Your task to perform on an android device: Show the shopping cart on newegg. Add razer thresher to the cart on newegg, then select checkout. Image 0: 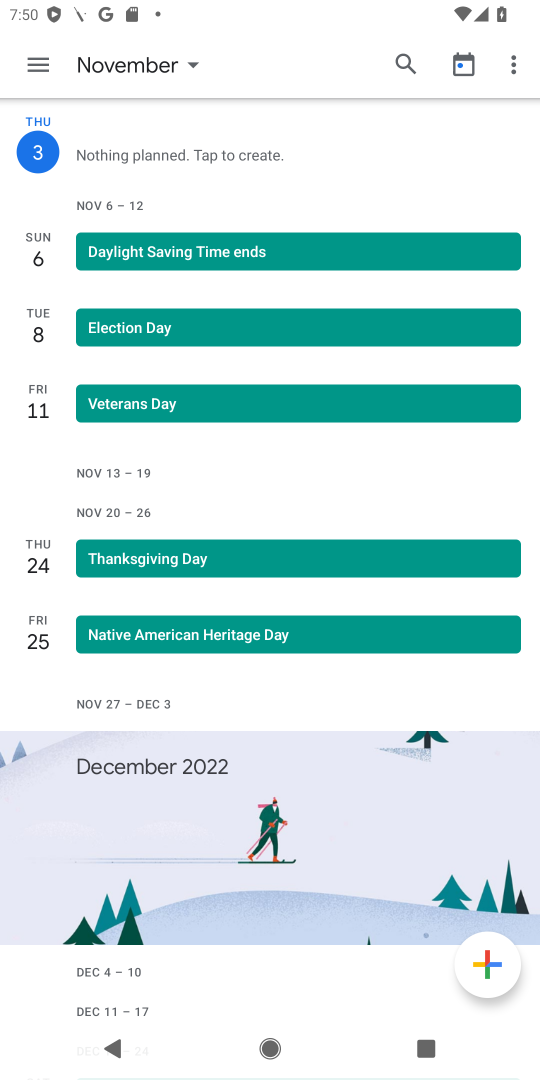
Step 0: press home button
Your task to perform on an android device: Show the shopping cart on newegg. Add razer thresher to the cart on newegg, then select checkout. Image 1: 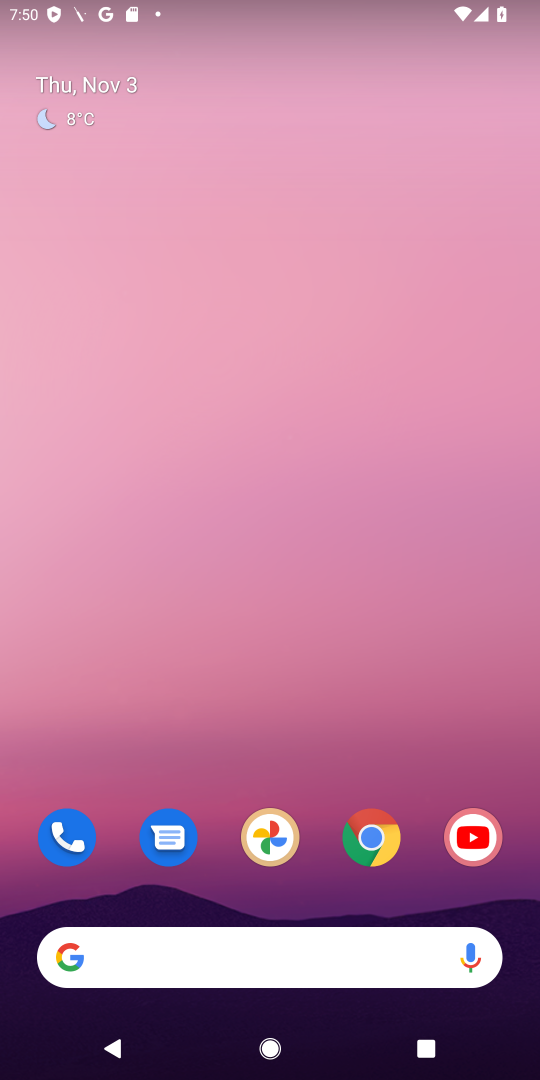
Step 1: click (363, 836)
Your task to perform on an android device: Show the shopping cart on newegg. Add razer thresher to the cart on newegg, then select checkout. Image 2: 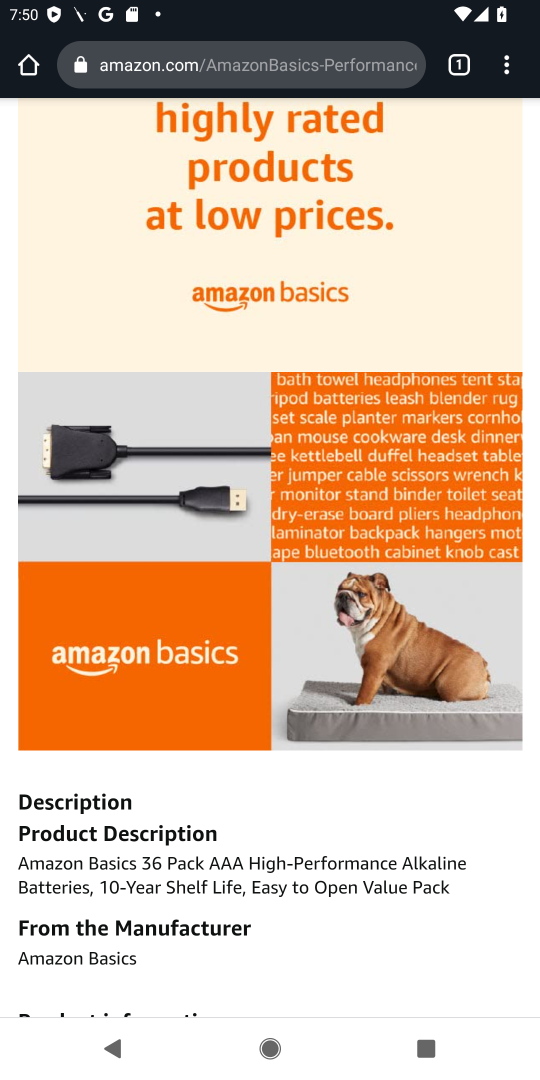
Step 2: click (282, 70)
Your task to perform on an android device: Show the shopping cart on newegg. Add razer thresher to the cart on newegg, then select checkout. Image 3: 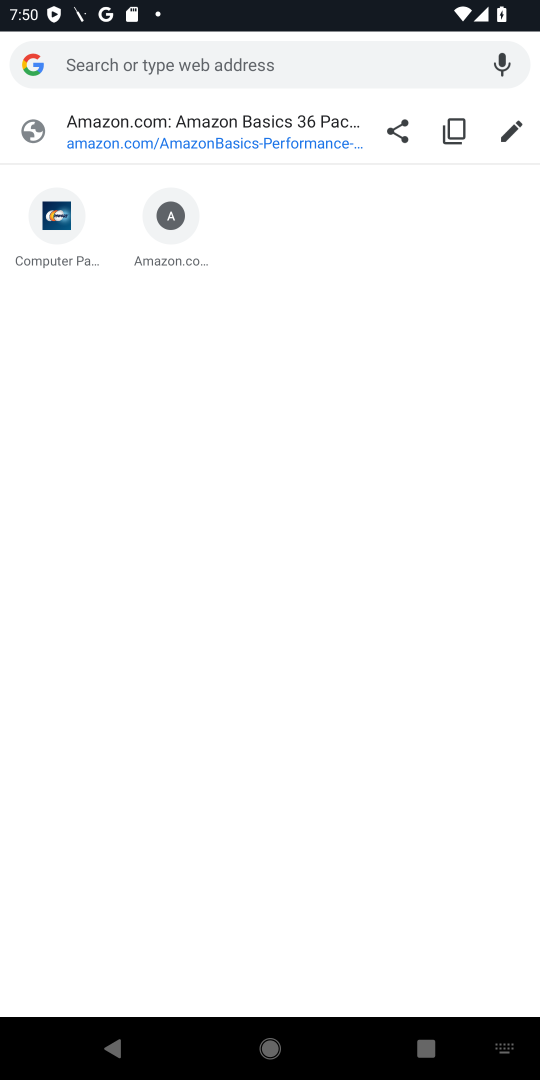
Step 3: type " newegg"
Your task to perform on an android device: Show the shopping cart on newegg. Add razer thresher to the cart on newegg, then select checkout. Image 4: 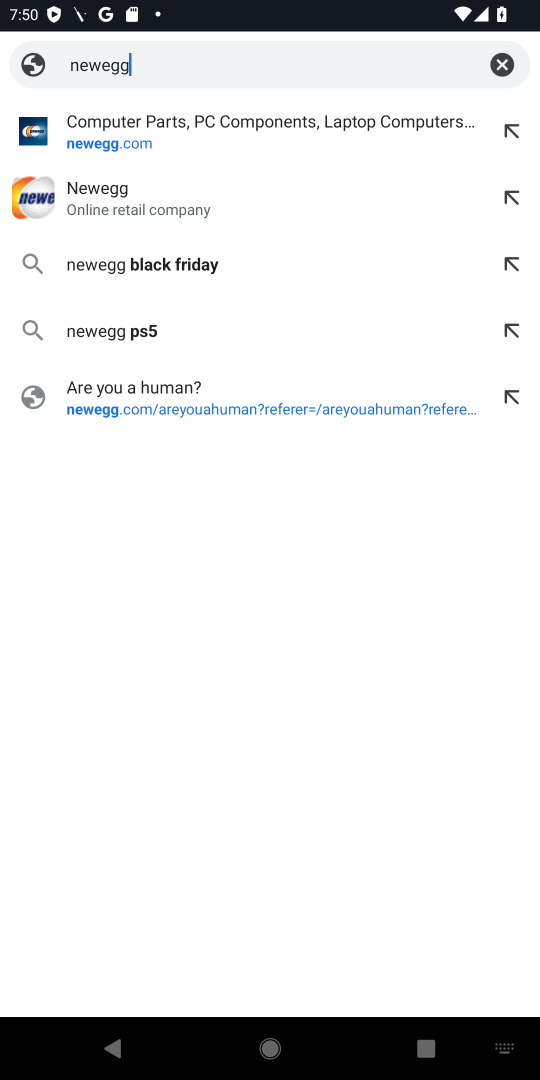
Step 4: click (89, 188)
Your task to perform on an android device: Show the shopping cart on newegg. Add razer thresher to the cart on newegg, then select checkout. Image 5: 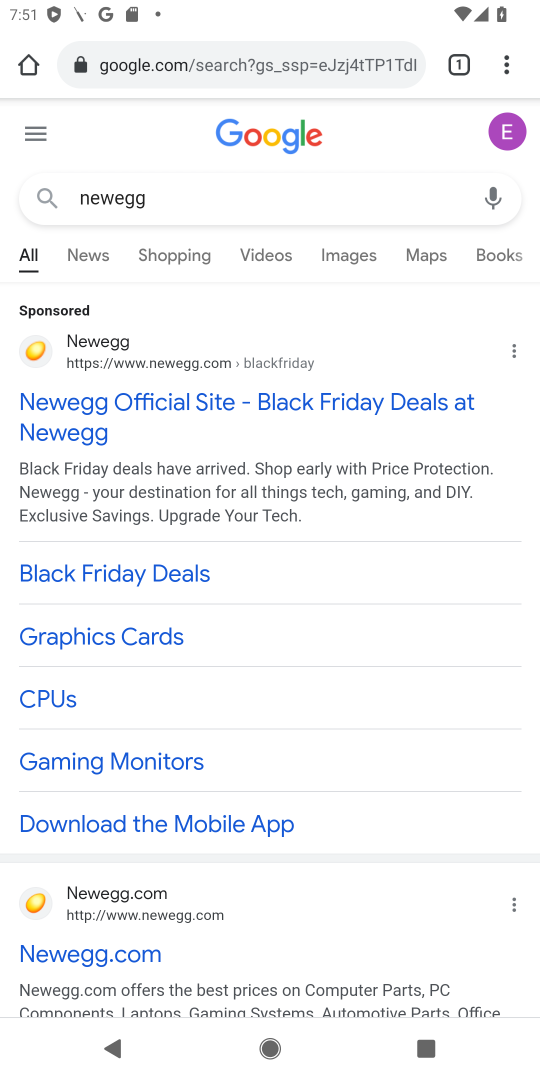
Step 5: click (142, 401)
Your task to perform on an android device: Show the shopping cart on newegg. Add razer thresher to the cart on newegg, then select checkout. Image 6: 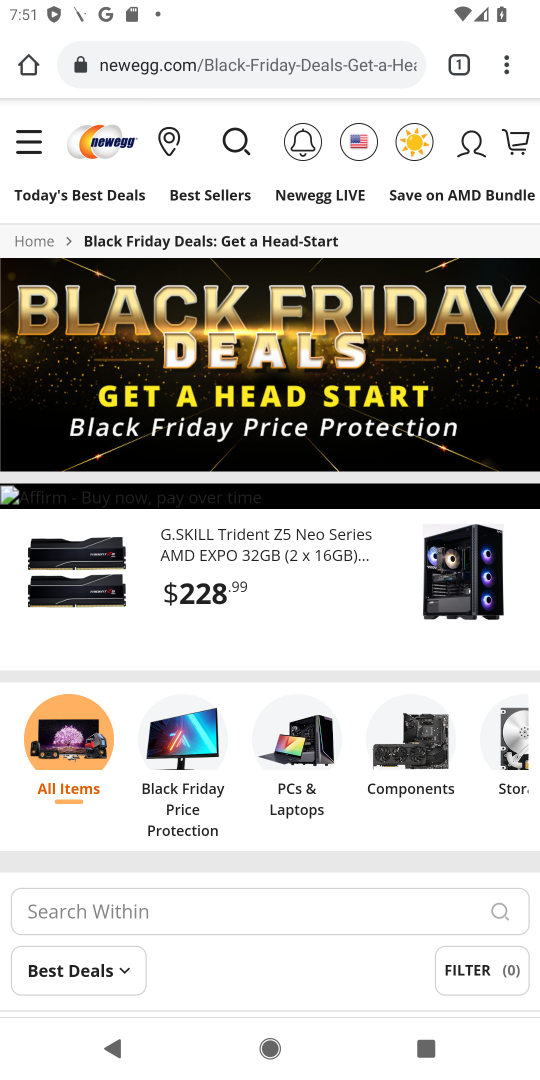
Step 6: click (235, 137)
Your task to perform on an android device: Show the shopping cart on newegg. Add razer thresher to the cart on newegg, then select checkout. Image 7: 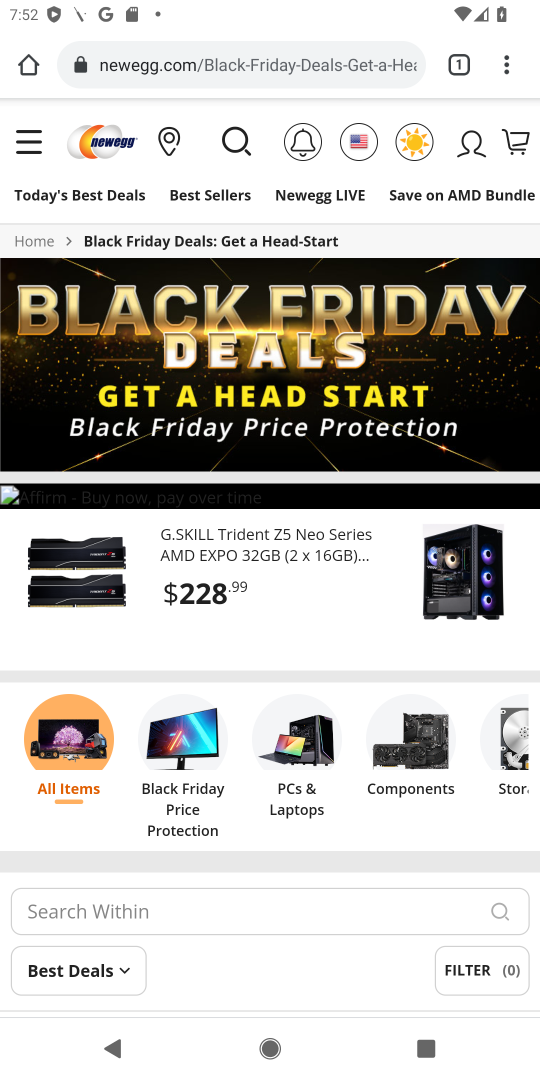
Step 7: click (230, 144)
Your task to perform on an android device: Show the shopping cart on newegg. Add razer thresher to the cart on newegg, then select checkout. Image 8: 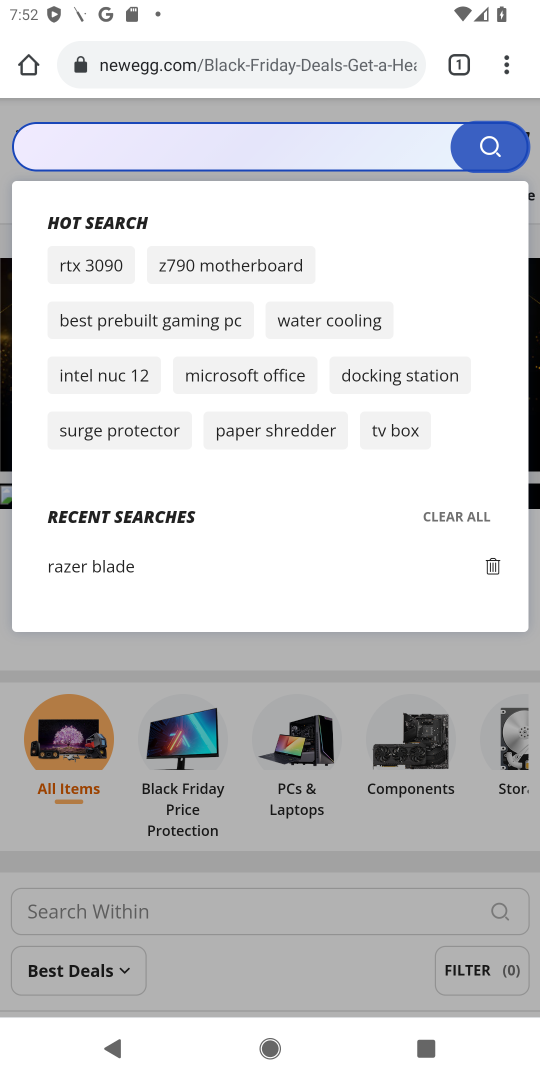
Step 8: click (92, 147)
Your task to perform on an android device: Show the shopping cart on newegg. Add razer thresher to the cart on newegg, then select checkout. Image 9: 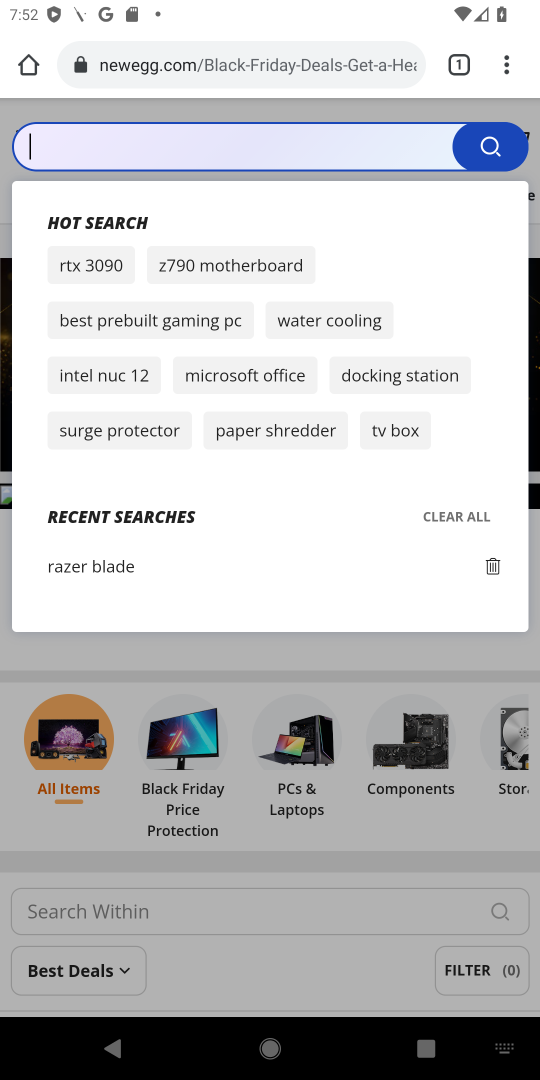
Step 9: type "razer thresher "
Your task to perform on an android device: Show the shopping cart on newegg. Add razer thresher to the cart on newegg, then select checkout. Image 10: 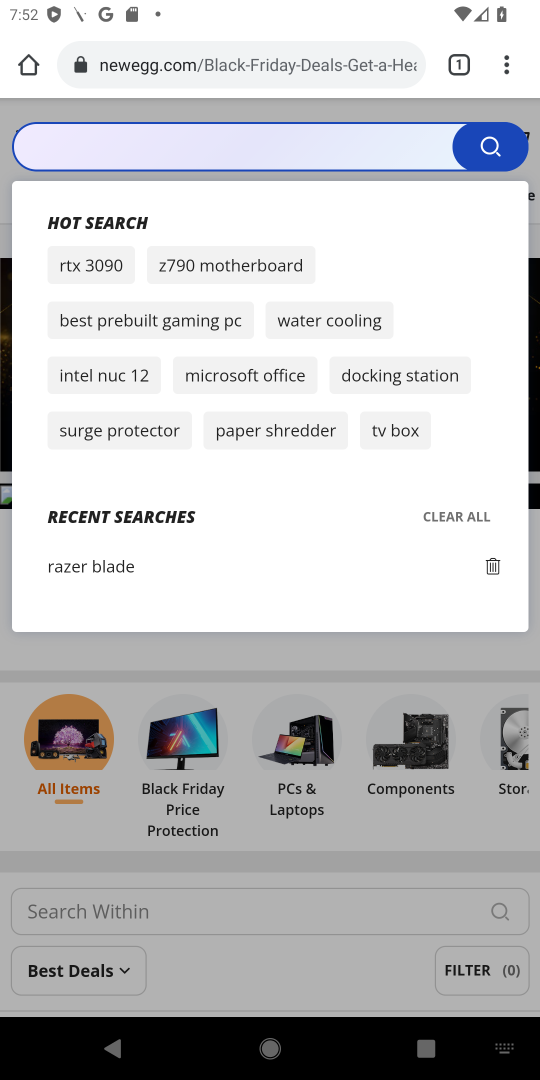
Step 10: press enter
Your task to perform on an android device: Show the shopping cart on newegg. Add razer thresher to the cart on newegg, then select checkout. Image 11: 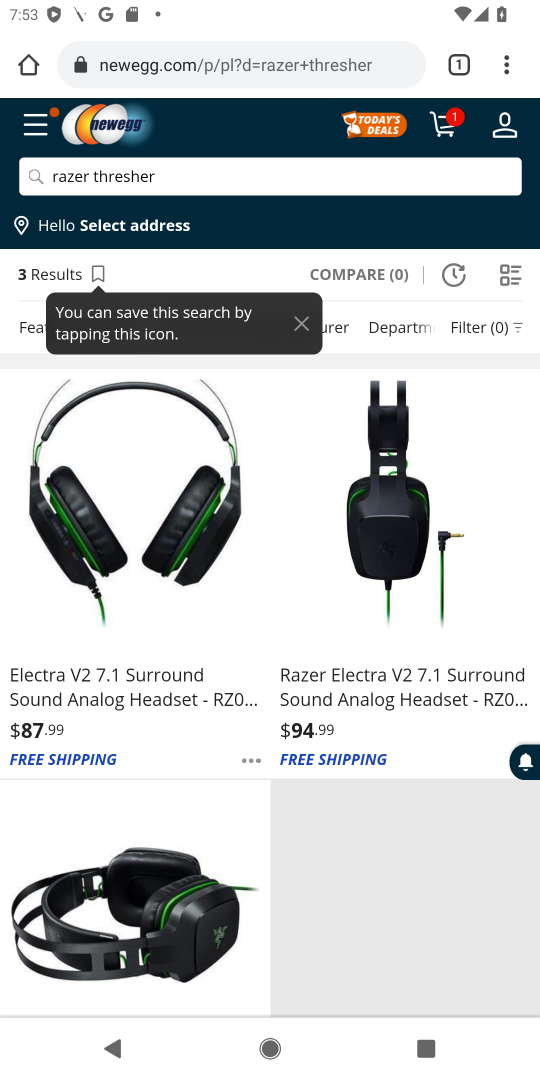
Step 11: task complete